Your task to perform on an android device: Add logitech g910 to the cart on ebay, then select checkout. Image 0: 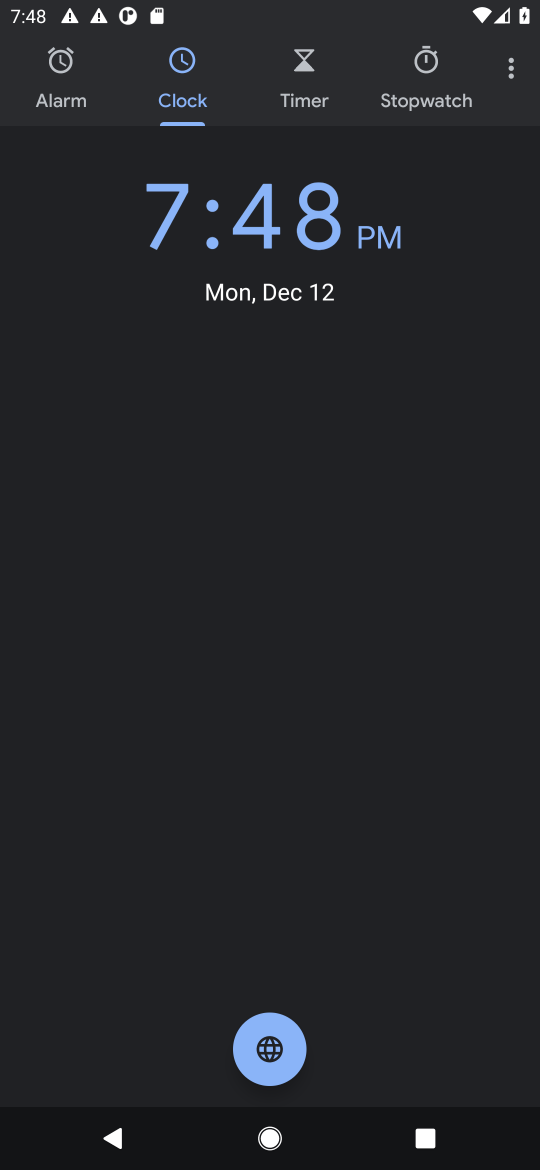
Step 0: press home button
Your task to perform on an android device: Add logitech g910 to the cart on ebay, then select checkout. Image 1: 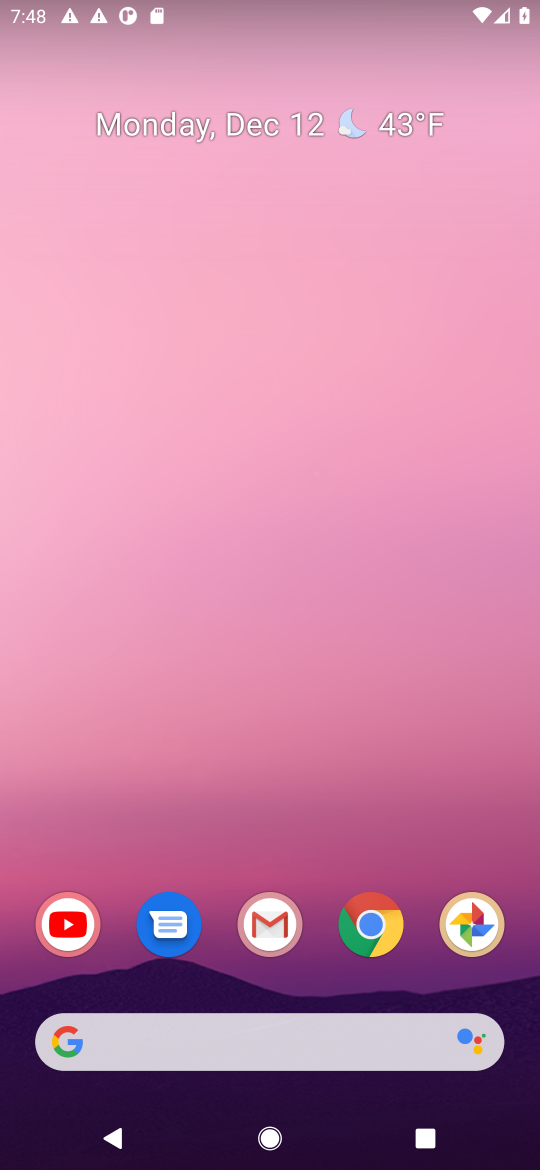
Step 1: click (228, 1035)
Your task to perform on an android device: Add logitech g910 to the cart on ebay, then select checkout. Image 2: 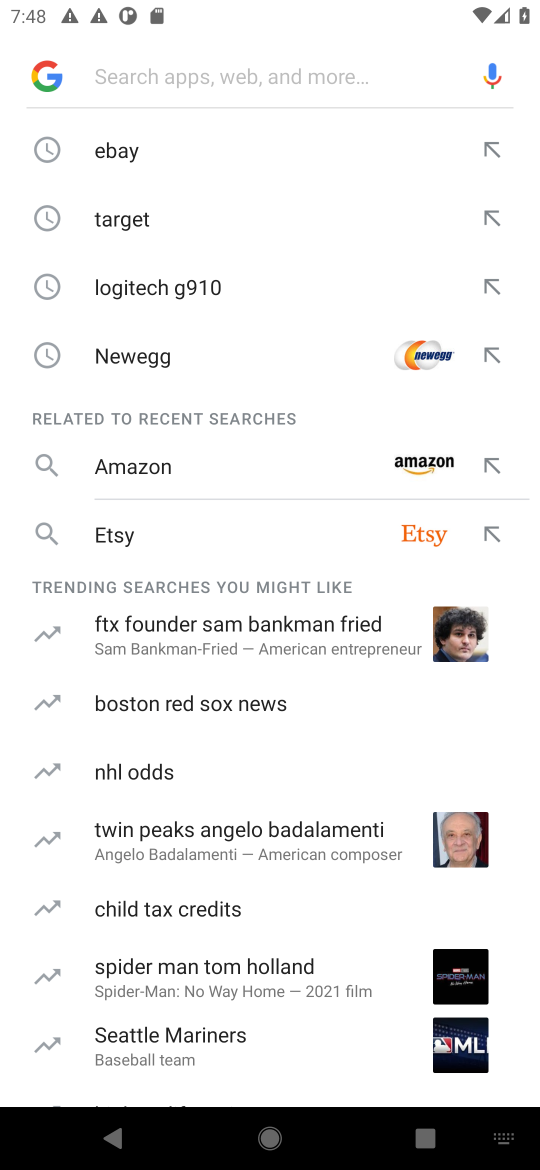
Step 2: click (115, 155)
Your task to perform on an android device: Add logitech g910 to the cart on ebay, then select checkout. Image 3: 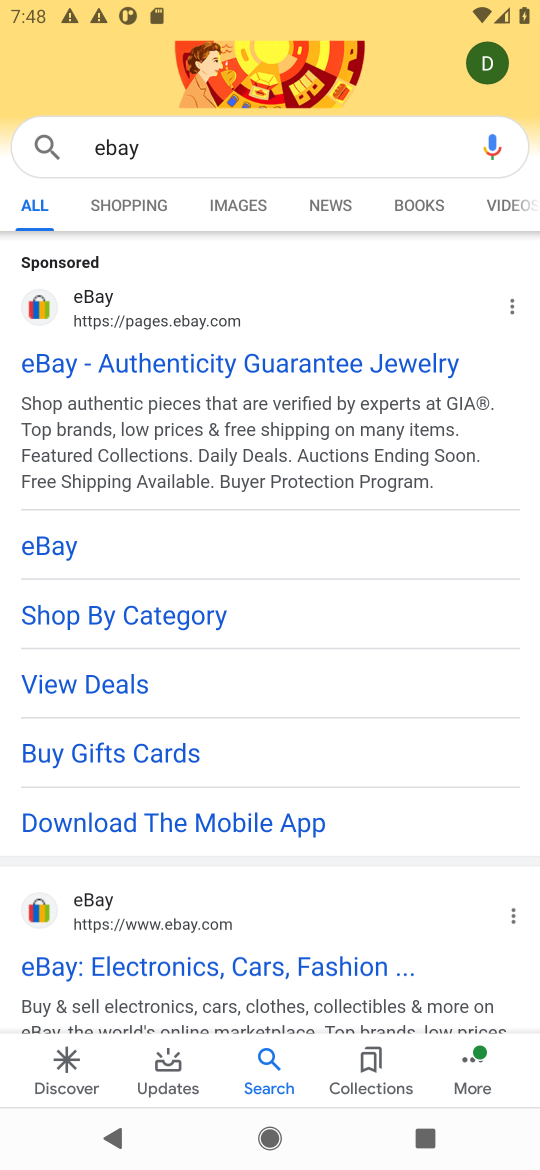
Step 3: click (98, 307)
Your task to perform on an android device: Add logitech g910 to the cart on ebay, then select checkout. Image 4: 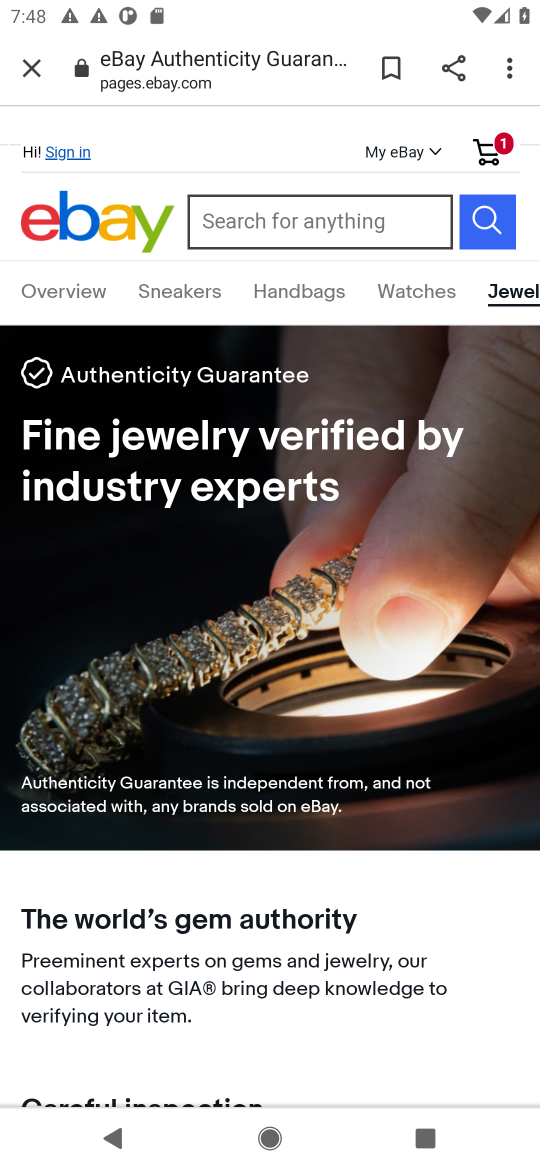
Step 4: click (271, 208)
Your task to perform on an android device: Add logitech g910 to the cart on ebay, then select checkout. Image 5: 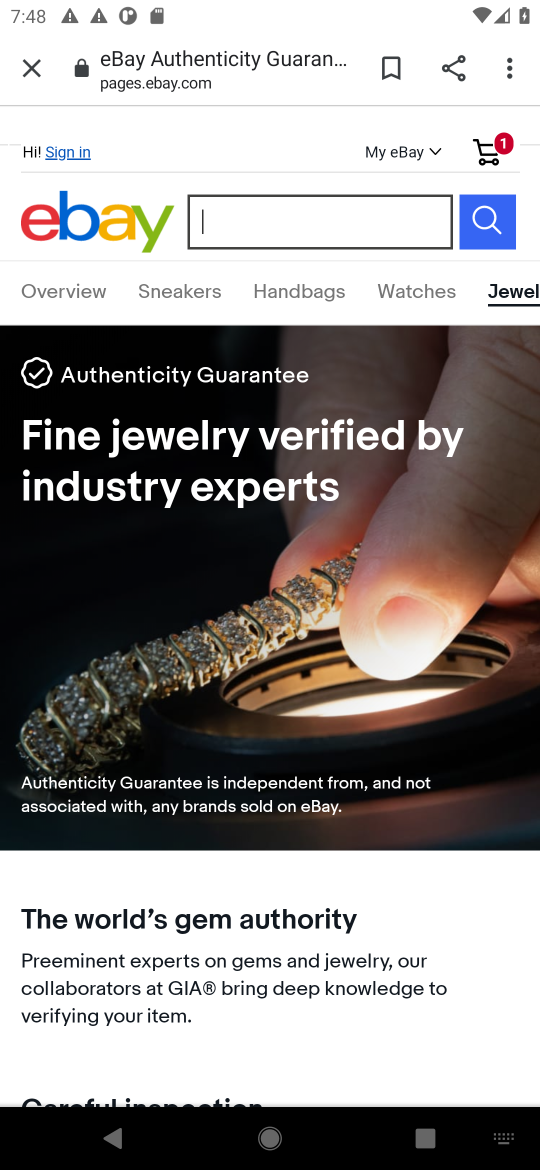
Step 5: type "logitech g910"
Your task to perform on an android device: Add logitech g910 to the cart on ebay, then select checkout. Image 6: 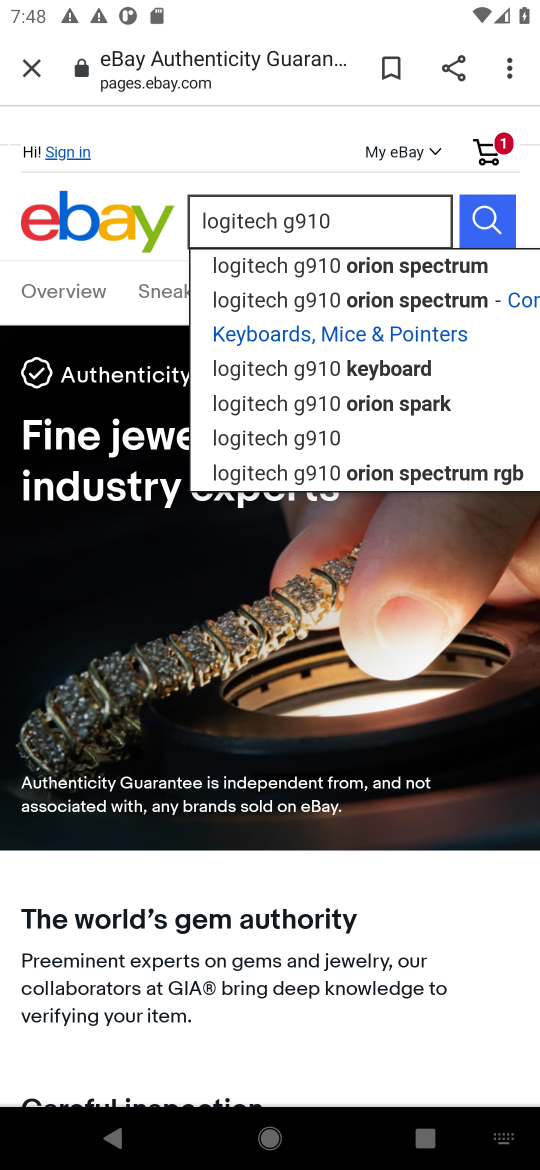
Step 6: click (481, 213)
Your task to perform on an android device: Add logitech g910 to the cart on ebay, then select checkout. Image 7: 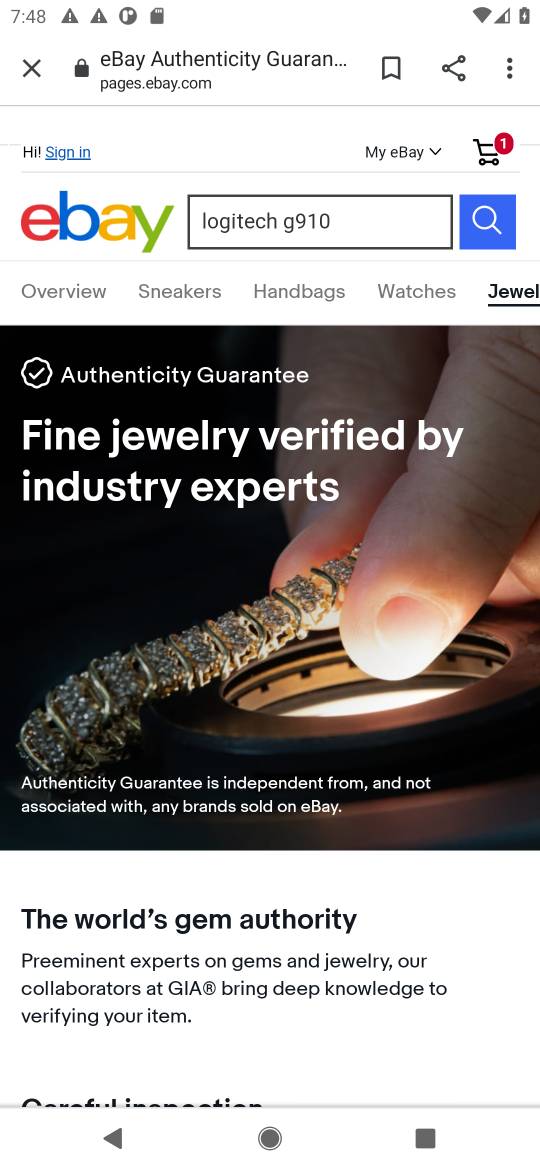
Step 7: click (493, 218)
Your task to perform on an android device: Add logitech g910 to the cart on ebay, then select checkout. Image 8: 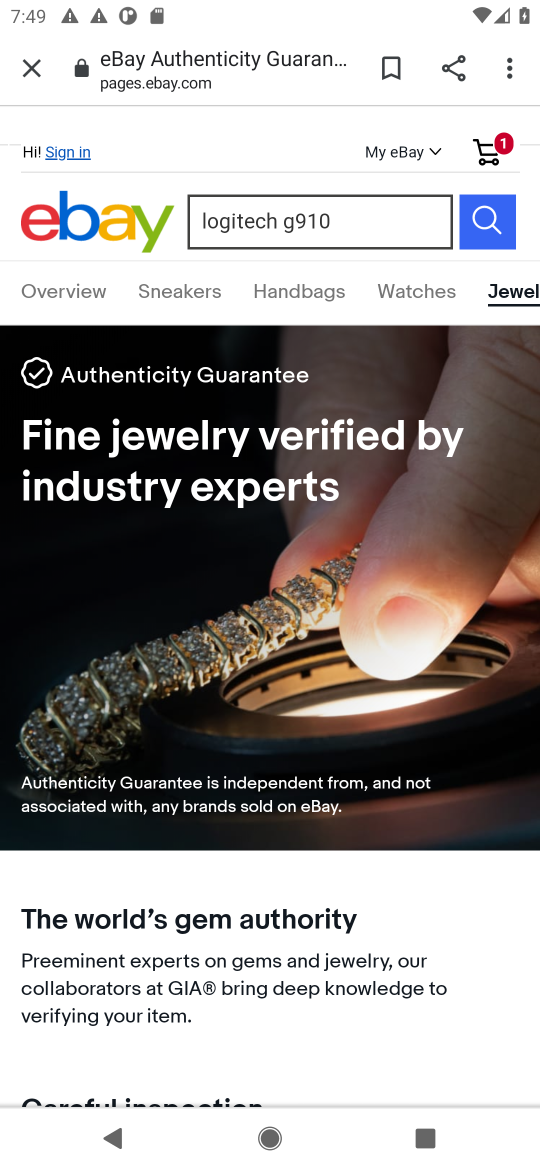
Step 8: click (478, 233)
Your task to perform on an android device: Add logitech g910 to the cart on ebay, then select checkout. Image 9: 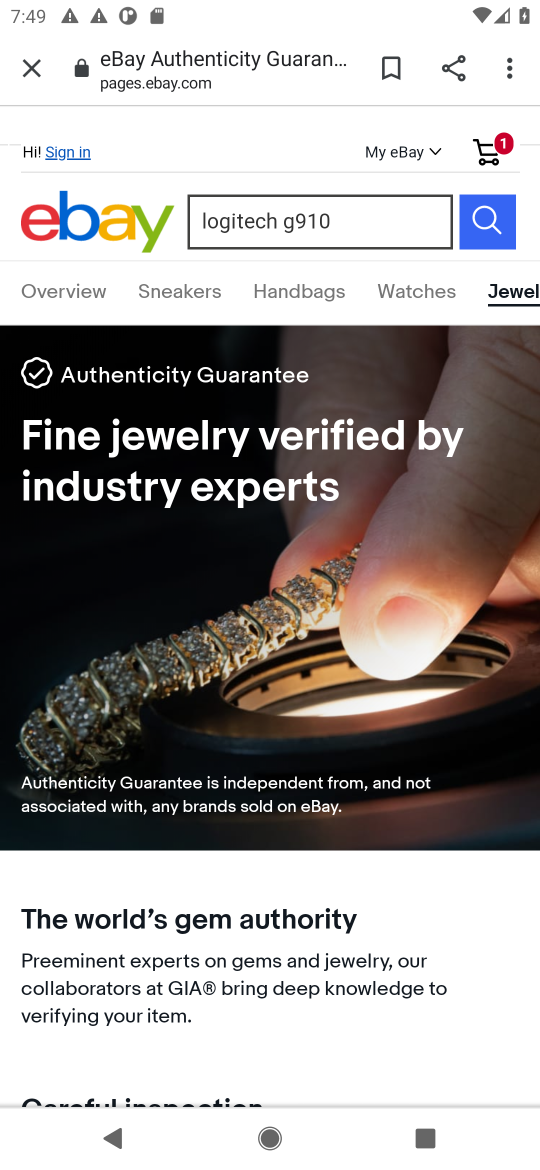
Step 9: click (484, 225)
Your task to perform on an android device: Add logitech g910 to the cart on ebay, then select checkout. Image 10: 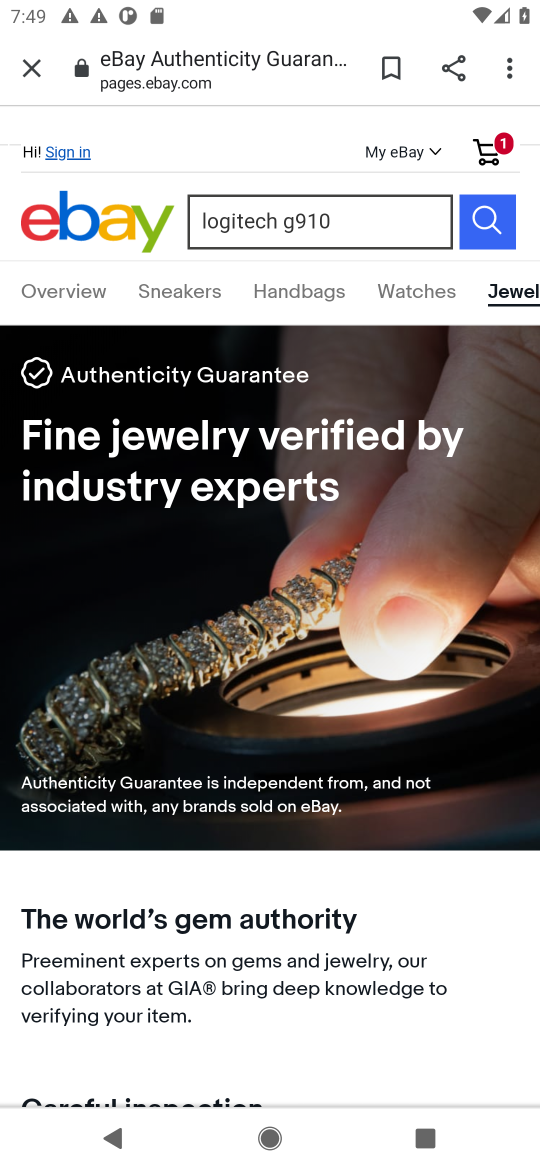
Step 10: click (484, 225)
Your task to perform on an android device: Add logitech g910 to the cart on ebay, then select checkout. Image 11: 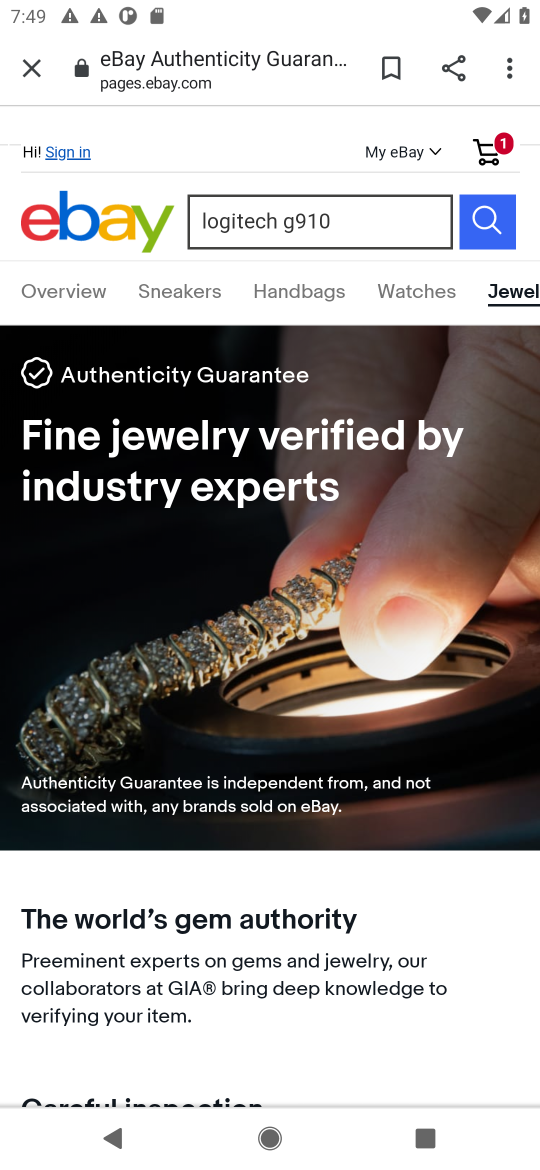
Step 11: click (366, 225)
Your task to perform on an android device: Add logitech g910 to the cart on ebay, then select checkout. Image 12: 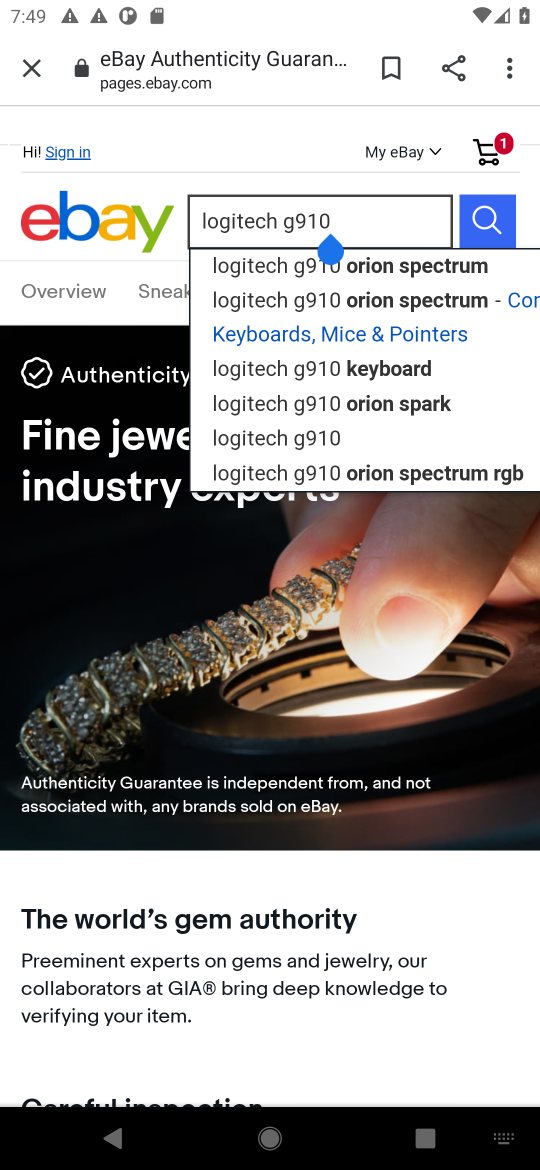
Step 12: click (357, 265)
Your task to perform on an android device: Add logitech g910 to the cart on ebay, then select checkout. Image 13: 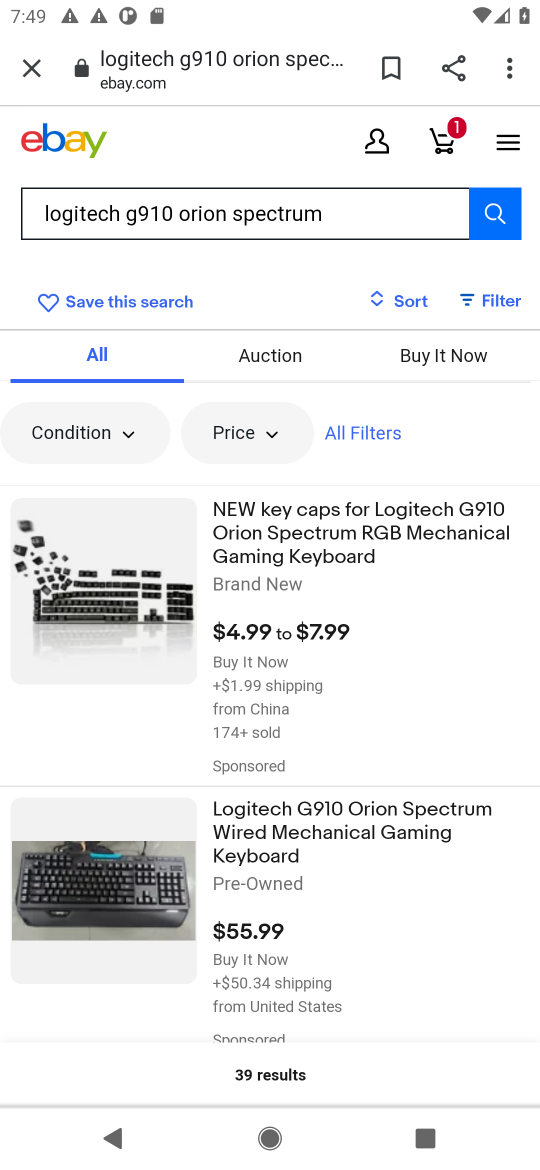
Step 13: click (110, 579)
Your task to perform on an android device: Add logitech g910 to the cart on ebay, then select checkout. Image 14: 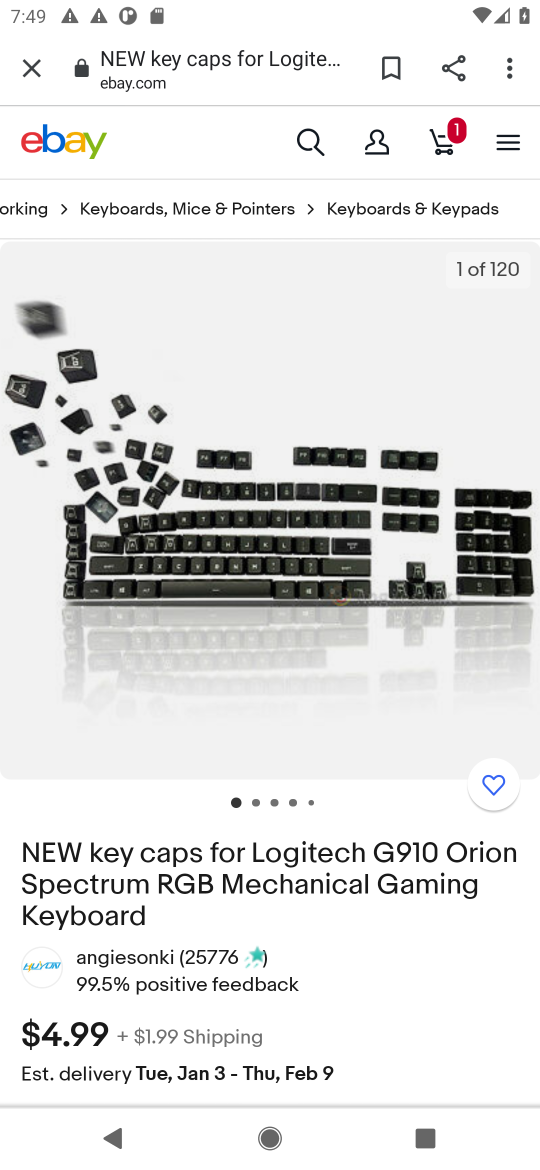
Step 14: drag from (275, 767) to (235, 565)
Your task to perform on an android device: Add logitech g910 to the cart on ebay, then select checkout. Image 15: 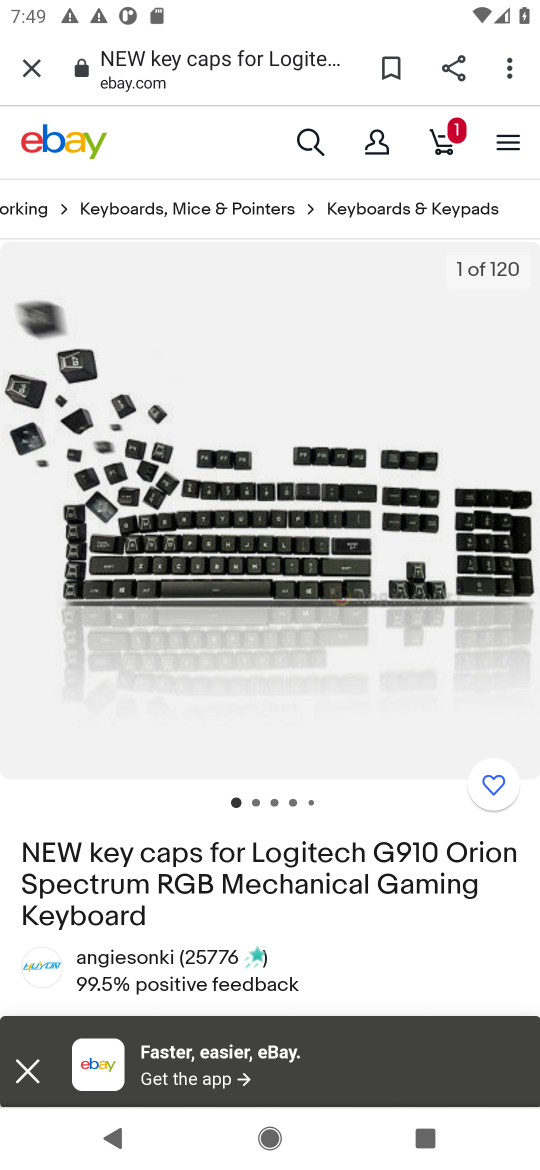
Step 15: drag from (188, 505) to (188, 410)
Your task to perform on an android device: Add logitech g910 to the cart on ebay, then select checkout. Image 16: 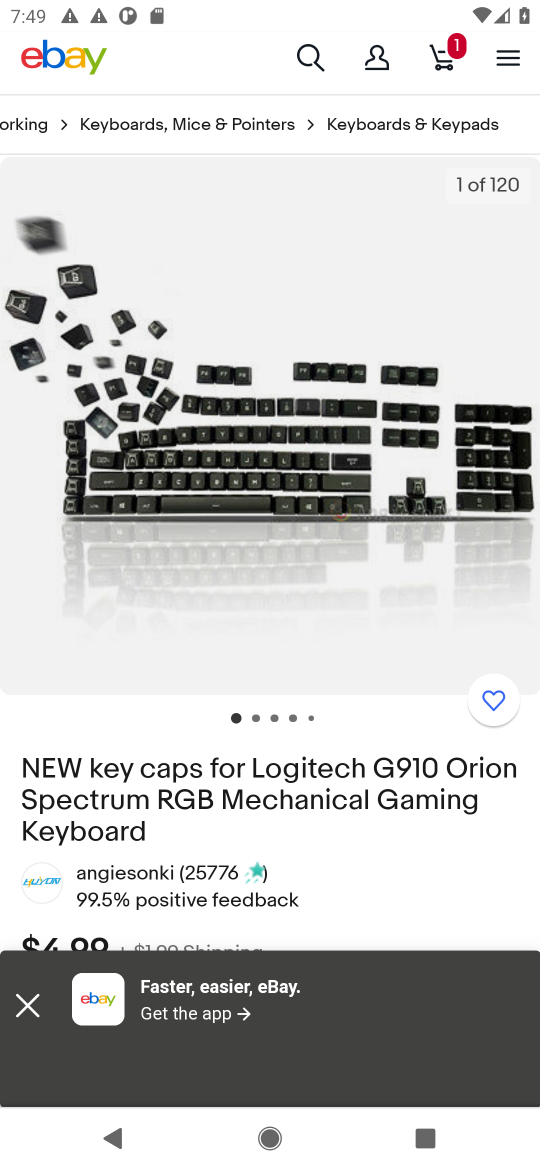
Step 16: drag from (318, 767) to (318, 341)
Your task to perform on an android device: Add logitech g910 to the cart on ebay, then select checkout. Image 17: 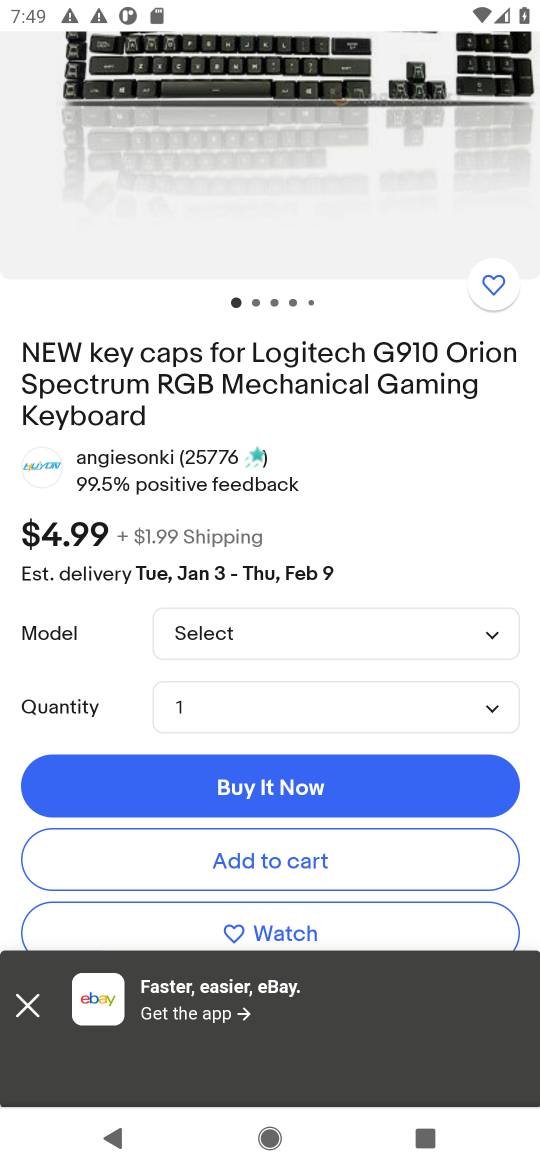
Step 17: click (259, 877)
Your task to perform on an android device: Add logitech g910 to the cart on ebay, then select checkout. Image 18: 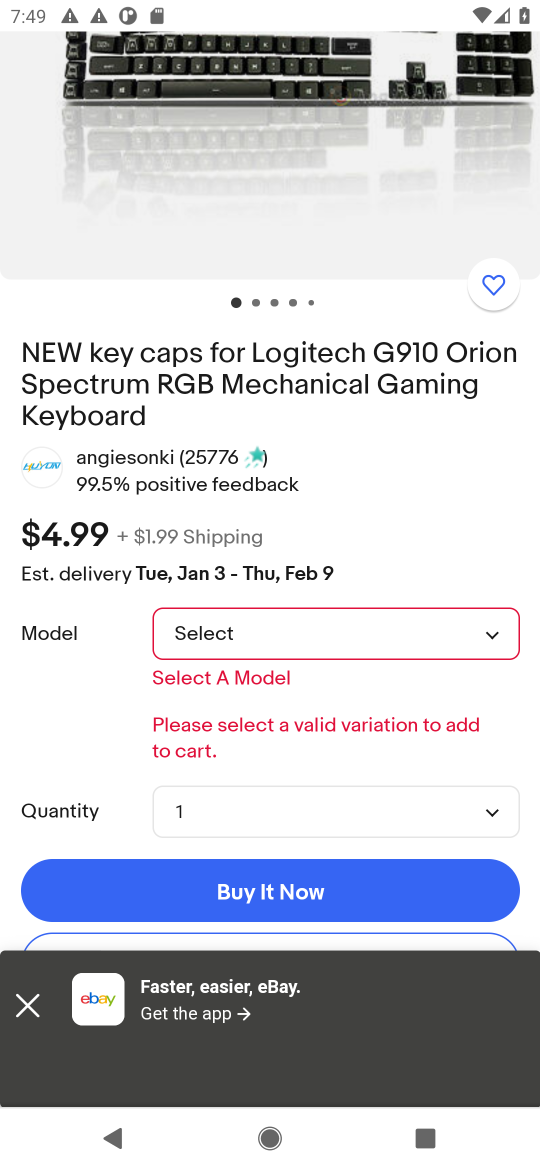
Step 18: click (454, 634)
Your task to perform on an android device: Add logitech g910 to the cart on ebay, then select checkout. Image 19: 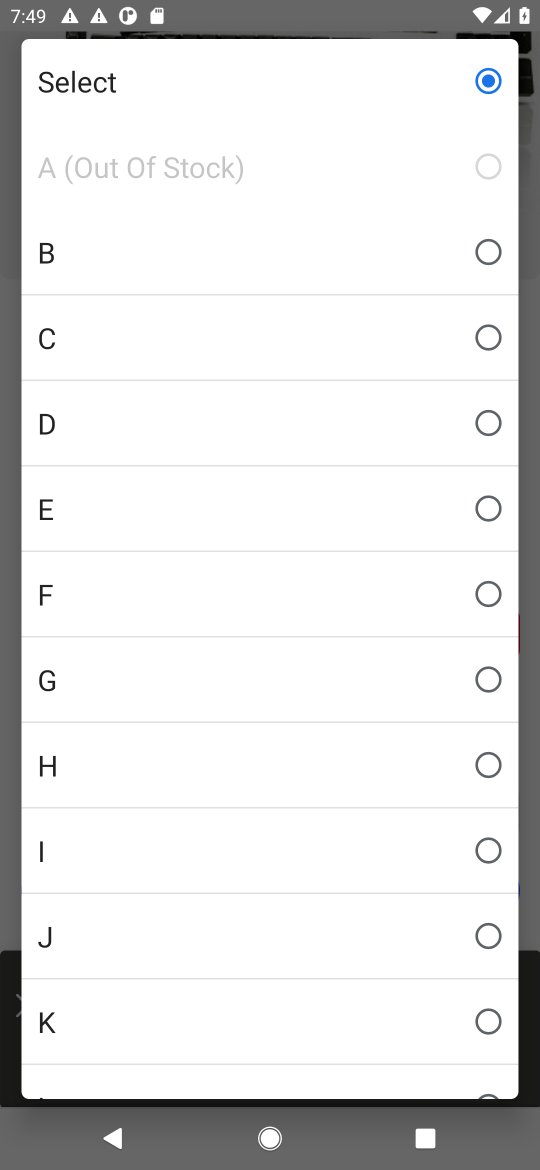
Step 19: click (485, 262)
Your task to perform on an android device: Add logitech g910 to the cart on ebay, then select checkout. Image 20: 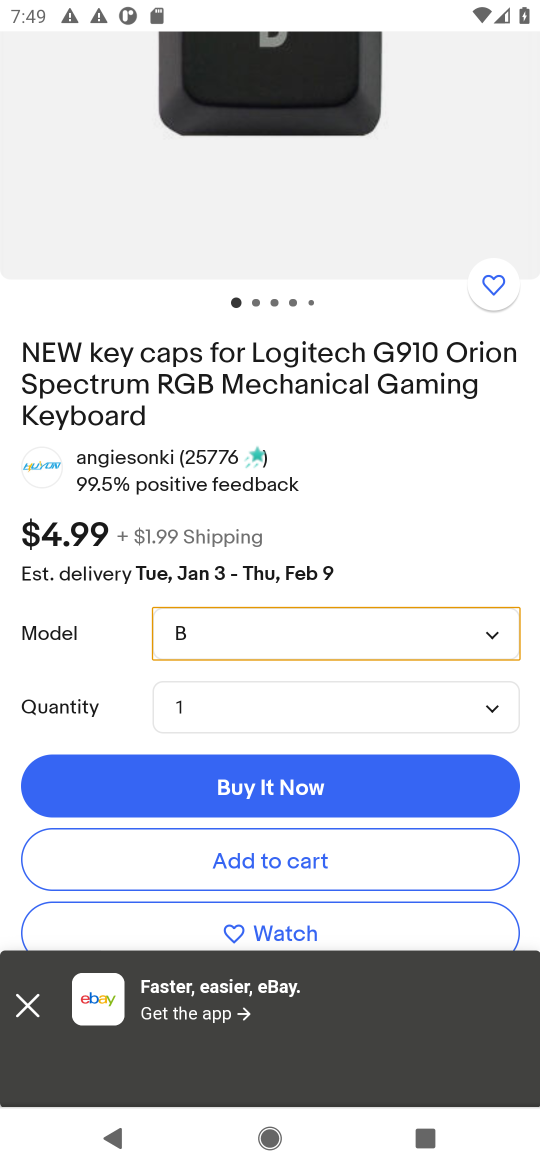
Step 20: click (273, 866)
Your task to perform on an android device: Add logitech g910 to the cart on ebay, then select checkout. Image 21: 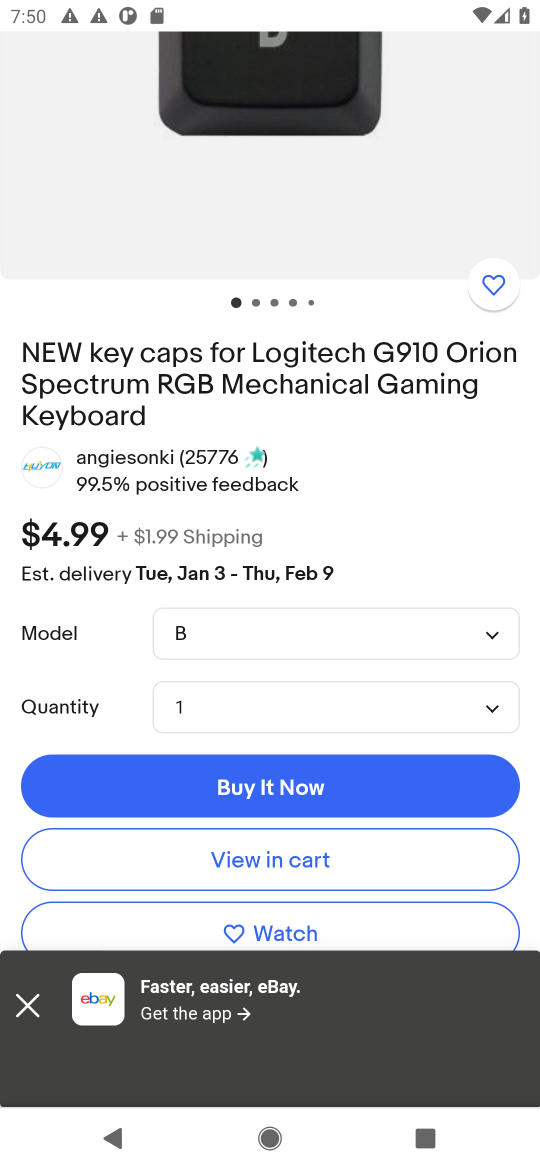
Step 21: click (273, 866)
Your task to perform on an android device: Add logitech g910 to the cart on ebay, then select checkout. Image 22: 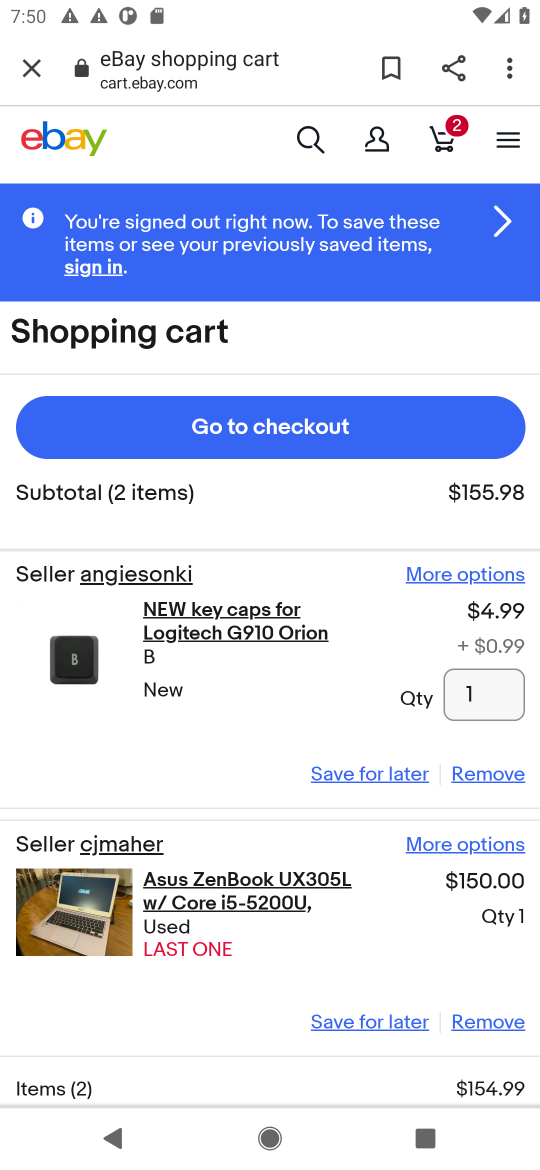
Step 22: click (238, 440)
Your task to perform on an android device: Add logitech g910 to the cart on ebay, then select checkout. Image 23: 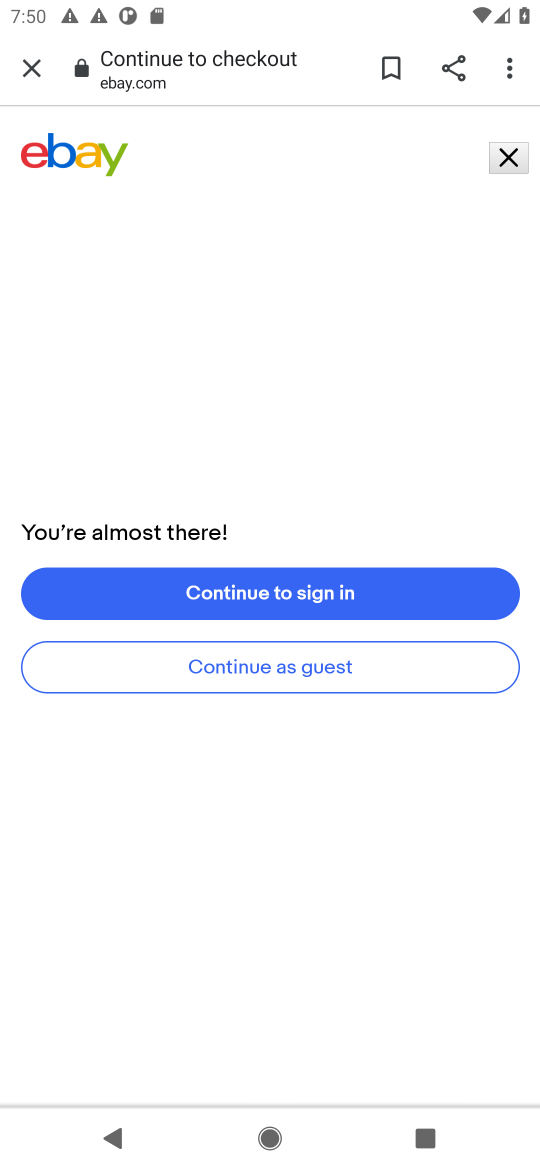
Step 23: task complete